Your task to perform on an android device: Open the Play Movies app and select the watchlist tab. Image 0: 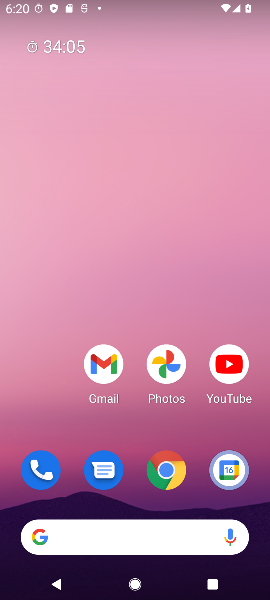
Step 0: drag from (152, 505) to (261, 16)
Your task to perform on an android device: Open the Play Movies app and select the watchlist tab. Image 1: 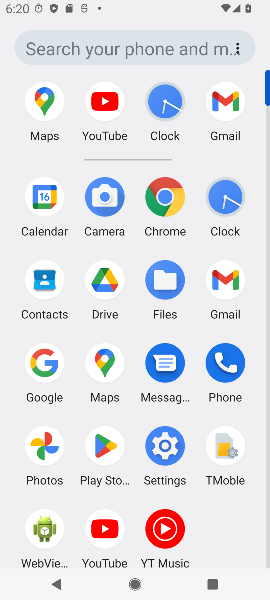
Step 1: task complete